Your task to perform on an android device: Toggle the flashlight Image 0: 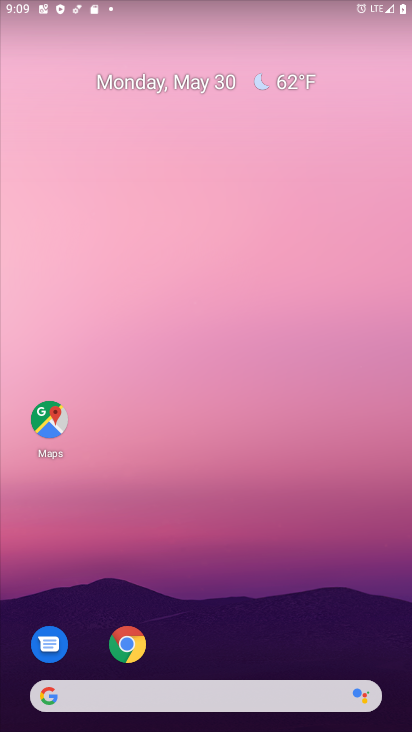
Step 0: drag from (210, 20) to (228, 437)
Your task to perform on an android device: Toggle the flashlight Image 1: 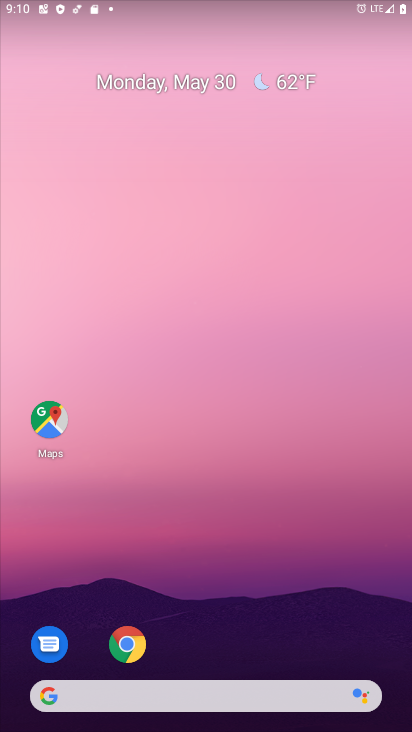
Step 1: drag from (252, 15) to (235, 518)
Your task to perform on an android device: Toggle the flashlight Image 2: 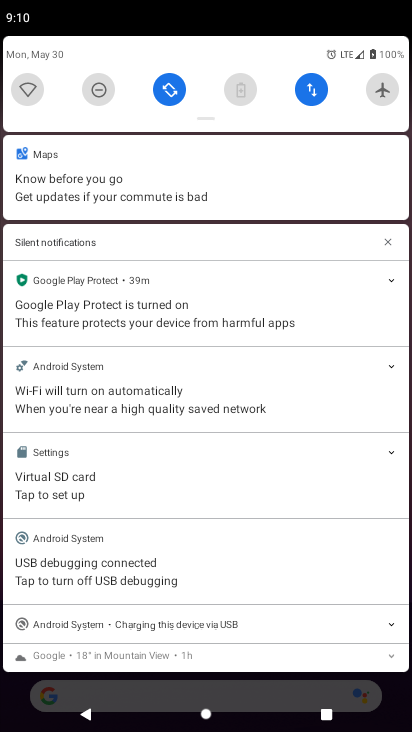
Step 2: drag from (199, 116) to (255, 520)
Your task to perform on an android device: Toggle the flashlight Image 3: 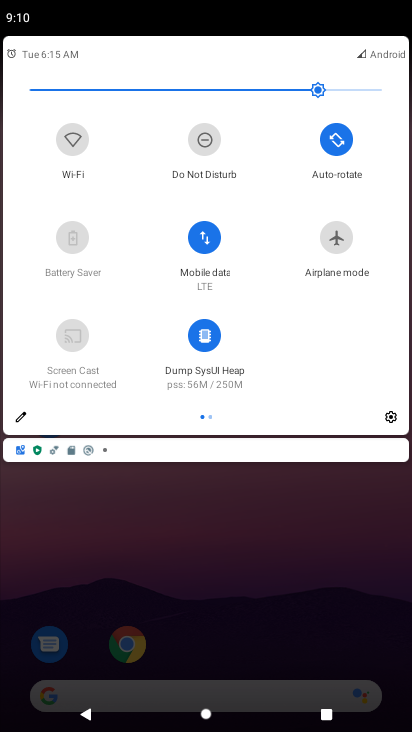
Step 3: click (20, 415)
Your task to perform on an android device: Toggle the flashlight Image 4: 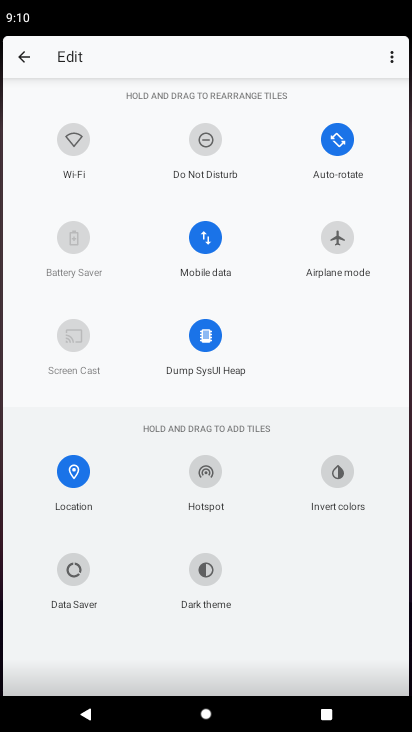
Step 4: task complete